Your task to perform on an android device: read, delete, or share a saved page in the chrome app Image 0: 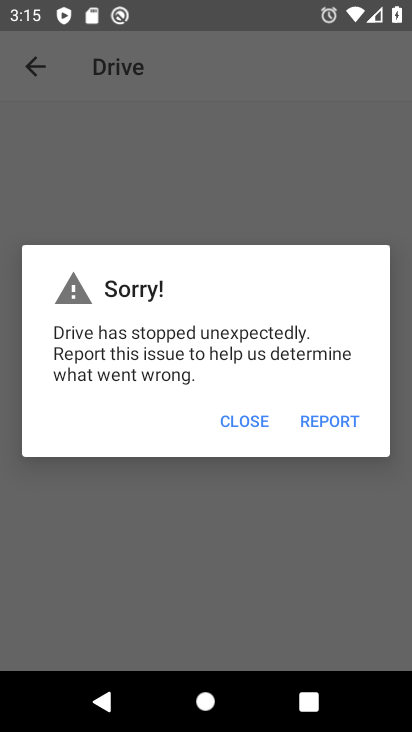
Step 0: press home button
Your task to perform on an android device: read, delete, or share a saved page in the chrome app Image 1: 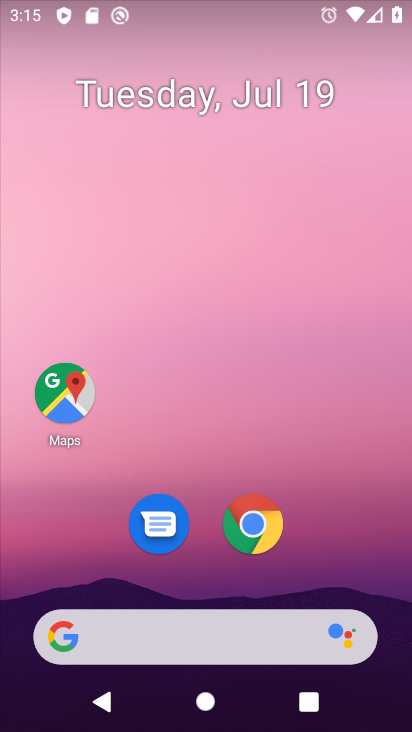
Step 1: click (250, 517)
Your task to perform on an android device: read, delete, or share a saved page in the chrome app Image 2: 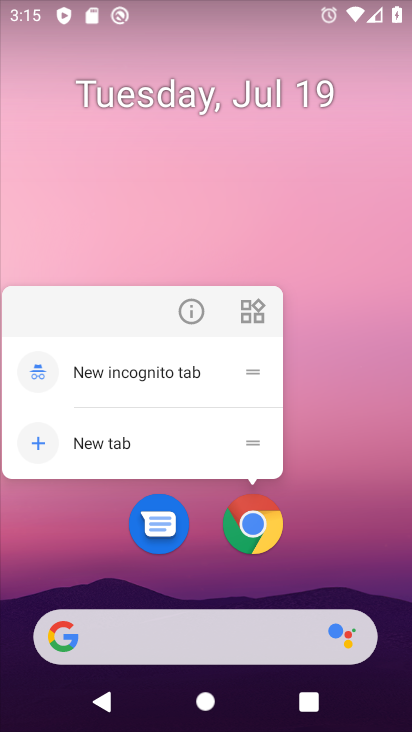
Step 2: click (250, 518)
Your task to perform on an android device: read, delete, or share a saved page in the chrome app Image 3: 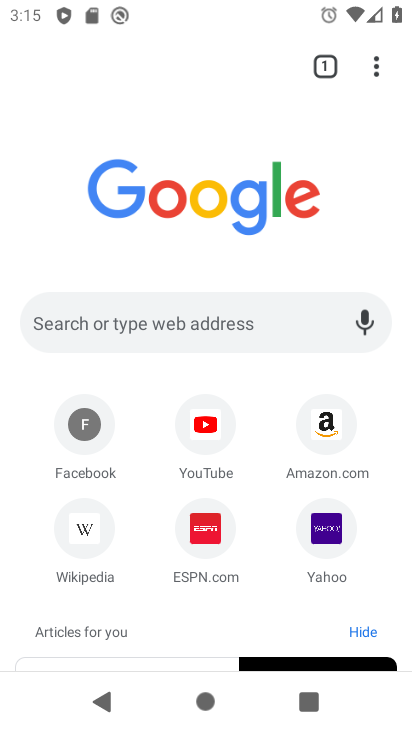
Step 3: click (372, 67)
Your task to perform on an android device: read, delete, or share a saved page in the chrome app Image 4: 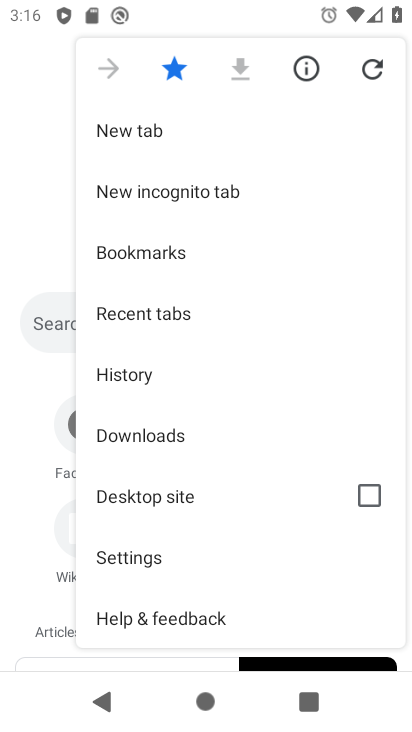
Step 4: click (163, 434)
Your task to perform on an android device: read, delete, or share a saved page in the chrome app Image 5: 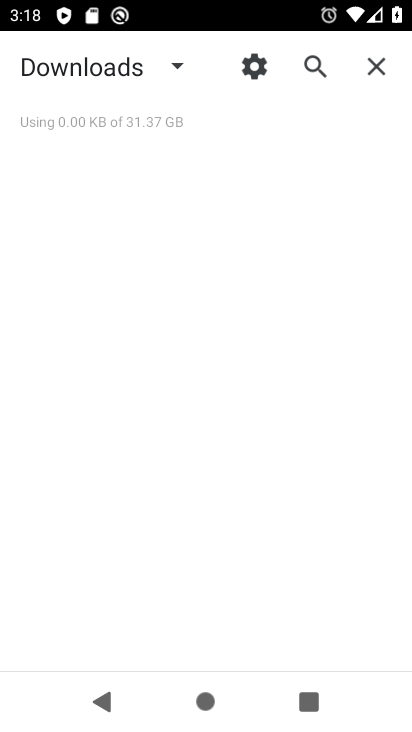
Step 5: task complete